Your task to perform on an android device: Open accessibility settings Image 0: 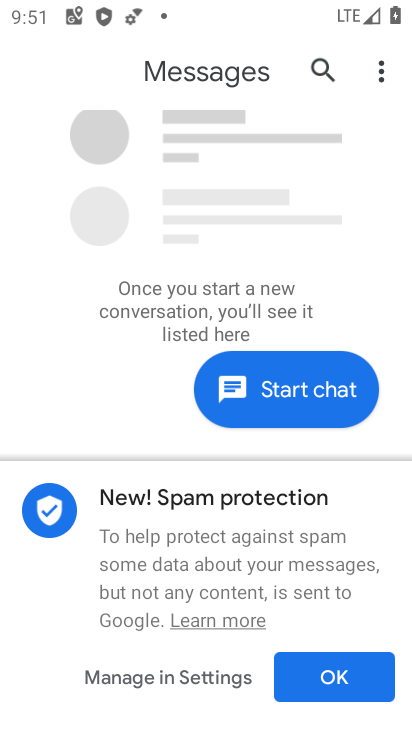
Step 0: press home button
Your task to perform on an android device: Open accessibility settings Image 1: 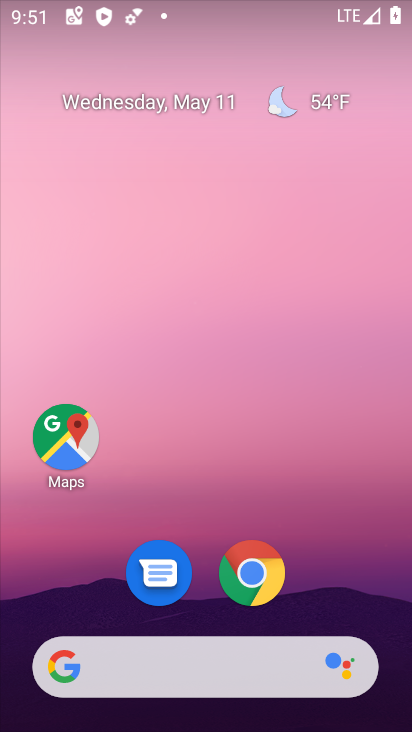
Step 1: drag from (256, 626) to (298, 3)
Your task to perform on an android device: Open accessibility settings Image 2: 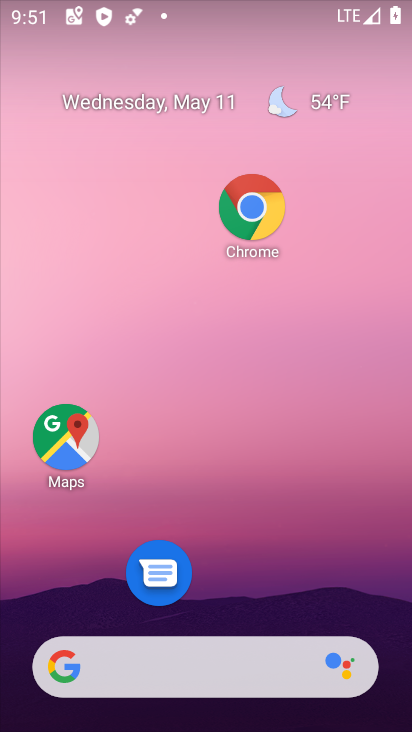
Step 2: click (401, 504)
Your task to perform on an android device: Open accessibility settings Image 3: 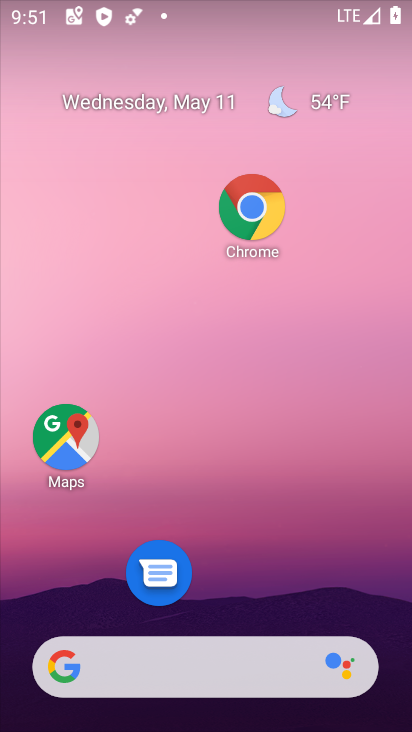
Step 3: drag from (303, 632) to (320, 0)
Your task to perform on an android device: Open accessibility settings Image 4: 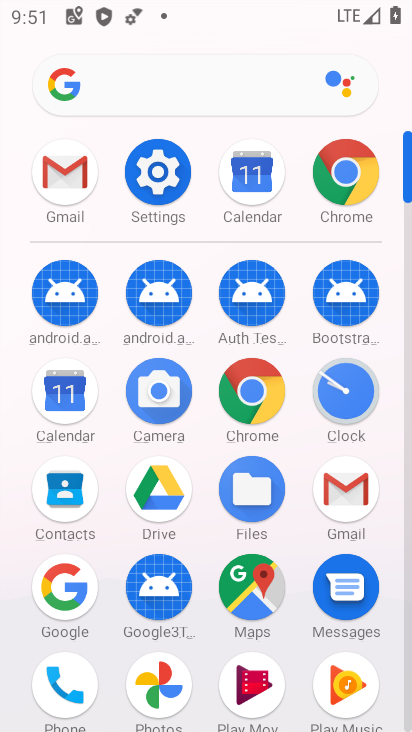
Step 4: click (175, 190)
Your task to perform on an android device: Open accessibility settings Image 5: 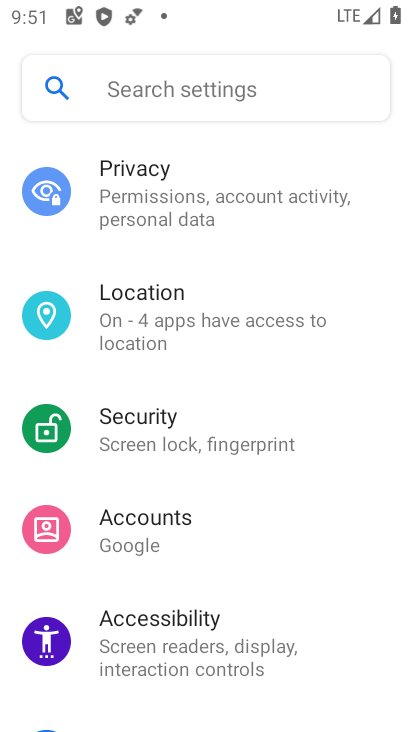
Step 5: click (222, 632)
Your task to perform on an android device: Open accessibility settings Image 6: 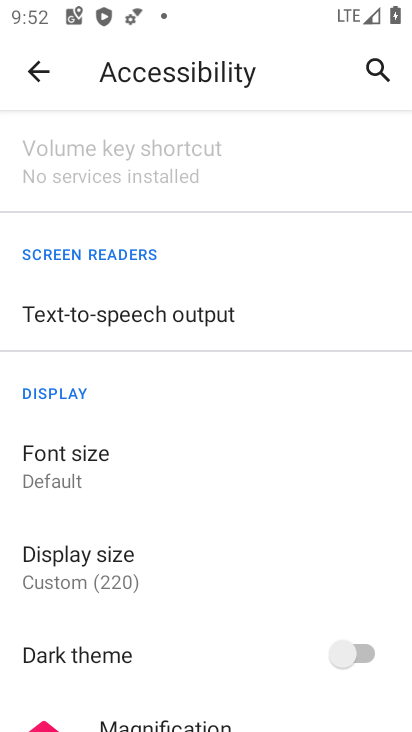
Step 6: task complete